Your task to perform on an android device: check data usage Image 0: 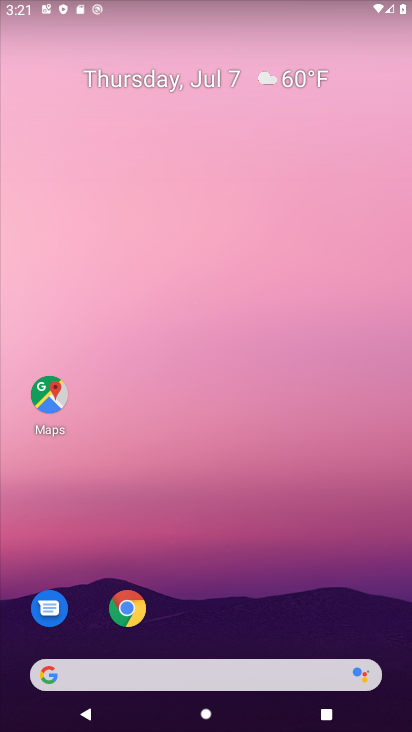
Step 0: drag from (206, 678) to (288, 61)
Your task to perform on an android device: check data usage Image 1: 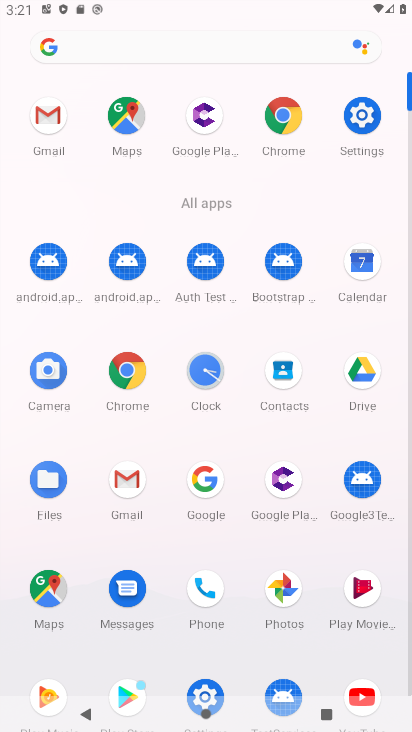
Step 1: click (355, 116)
Your task to perform on an android device: check data usage Image 2: 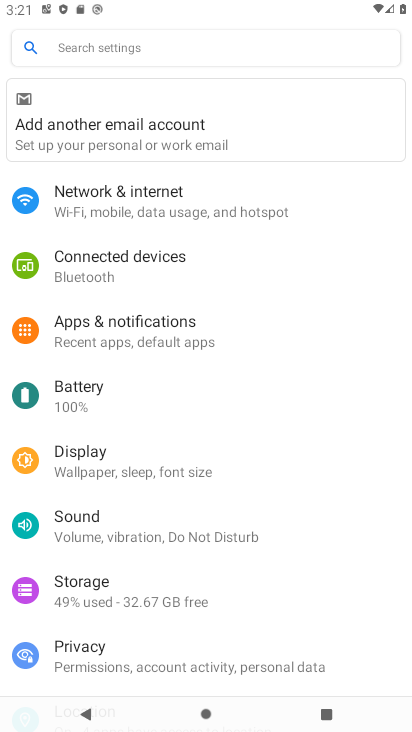
Step 2: click (235, 212)
Your task to perform on an android device: check data usage Image 3: 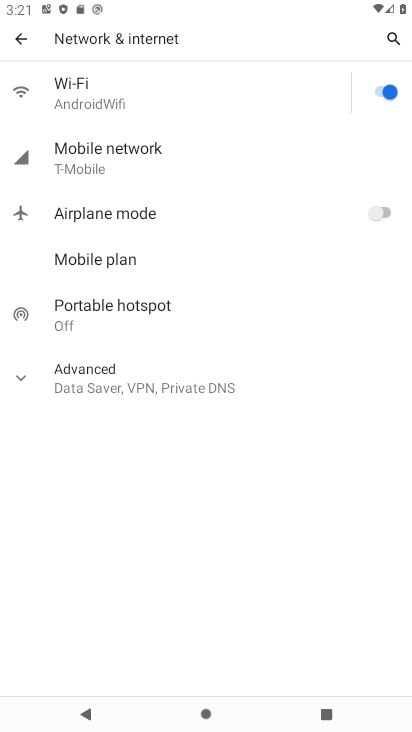
Step 3: click (63, 156)
Your task to perform on an android device: check data usage Image 4: 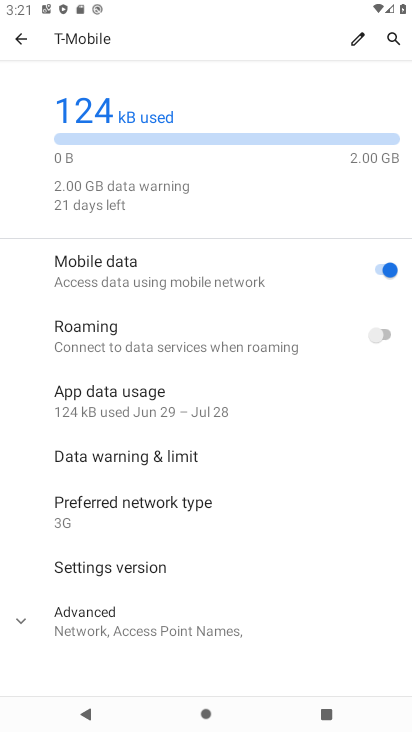
Step 4: task complete